Your task to perform on an android device: set the stopwatch Image 0: 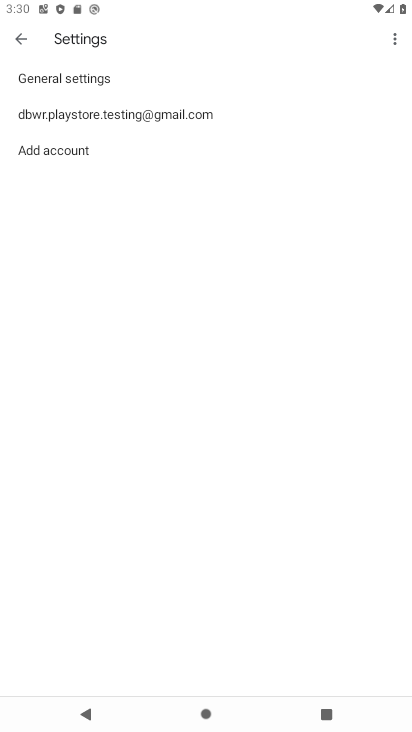
Step 0: press home button
Your task to perform on an android device: set the stopwatch Image 1: 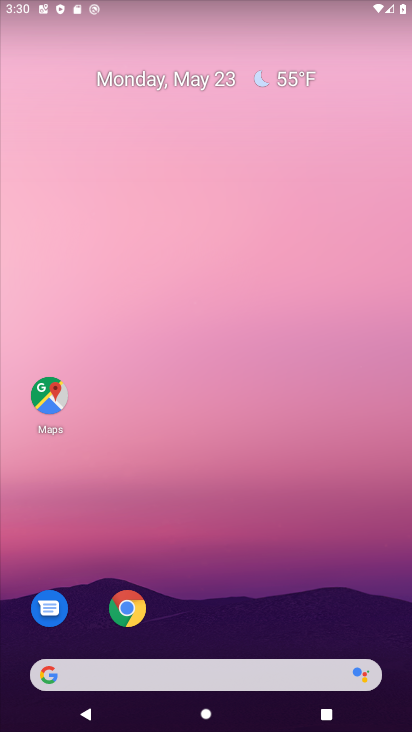
Step 1: drag from (288, 554) to (133, 0)
Your task to perform on an android device: set the stopwatch Image 2: 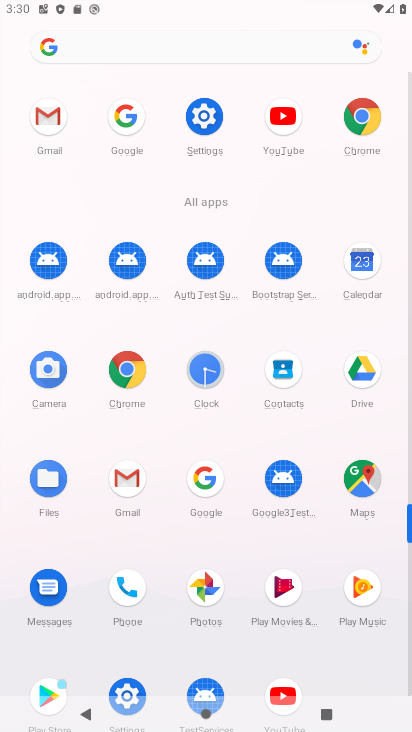
Step 2: click (204, 376)
Your task to perform on an android device: set the stopwatch Image 3: 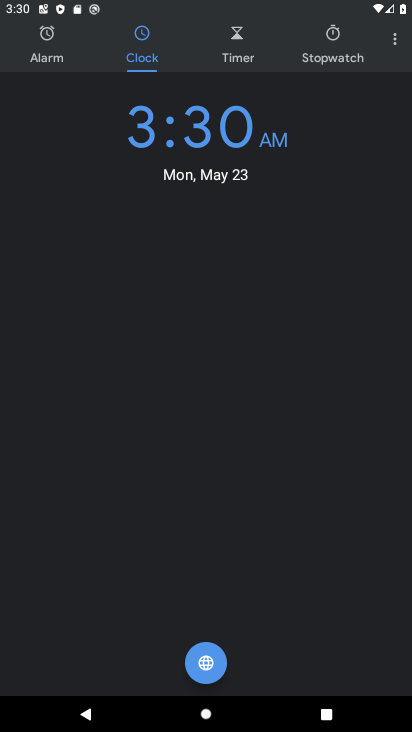
Step 3: click (334, 43)
Your task to perform on an android device: set the stopwatch Image 4: 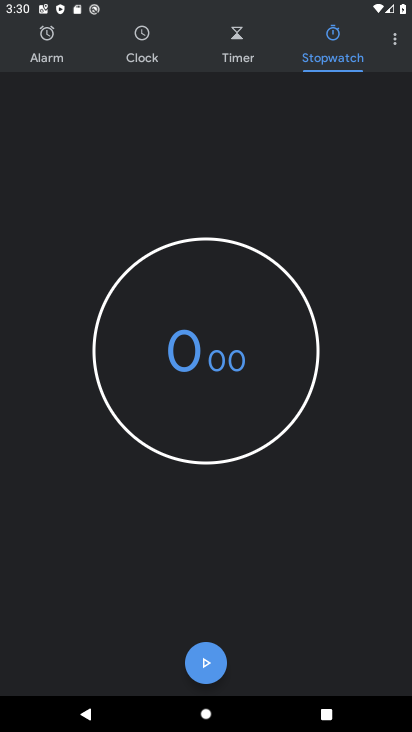
Step 4: click (205, 678)
Your task to perform on an android device: set the stopwatch Image 5: 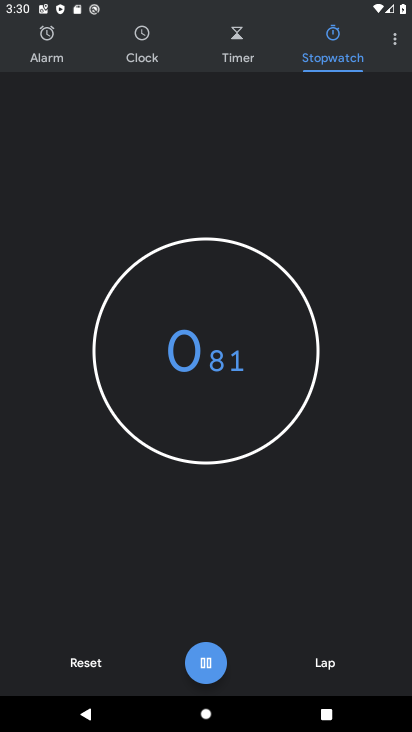
Step 5: task complete